Your task to perform on an android device: When is my next meeting? Image 0: 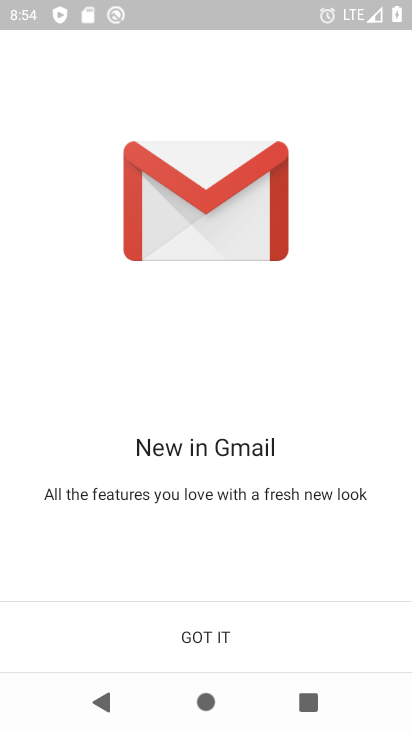
Step 0: drag from (252, 663) to (308, 189)
Your task to perform on an android device: When is my next meeting? Image 1: 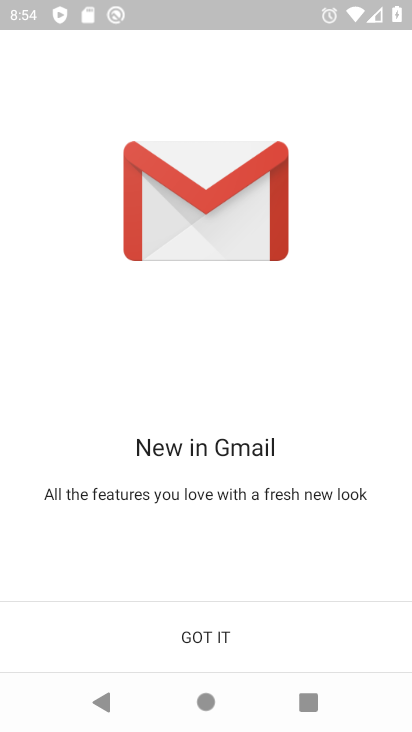
Step 1: press home button
Your task to perform on an android device: When is my next meeting? Image 2: 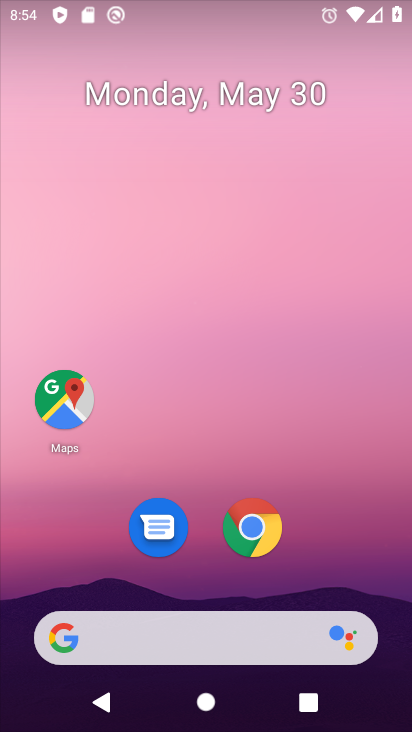
Step 2: drag from (209, 630) to (317, 0)
Your task to perform on an android device: When is my next meeting? Image 3: 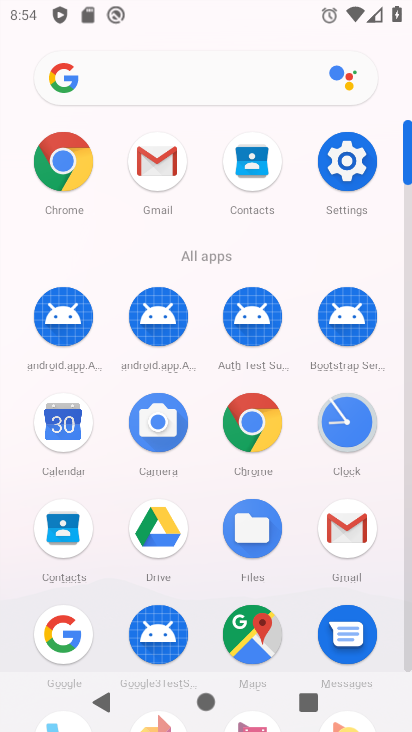
Step 3: click (82, 427)
Your task to perform on an android device: When is my next meeting? Image 4: 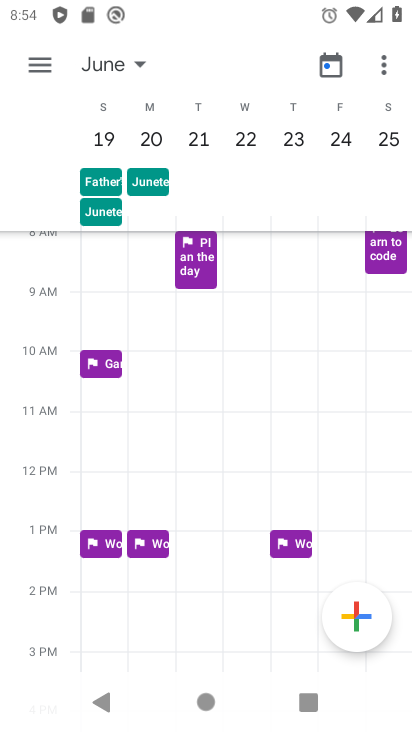
Step 4: click (139, 64)
Your task to perform on an android device: When is my next meeting? Image 5: 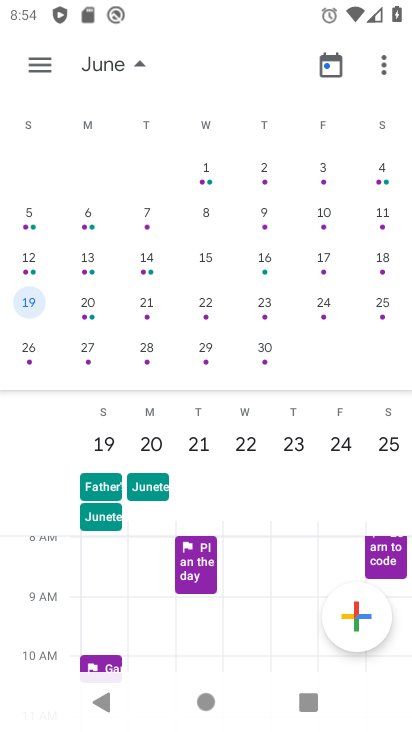
Step 5: drag from (121, 269) to (394, 241)
Your task to perform on an android device: When is my next meeting? Image 6: 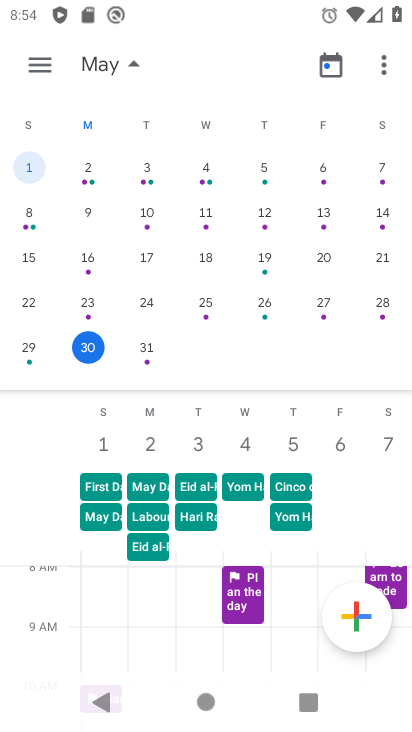
Step 6: click (151, 347)
Your task to perform on an android device: When is my next meeting? Image 7: 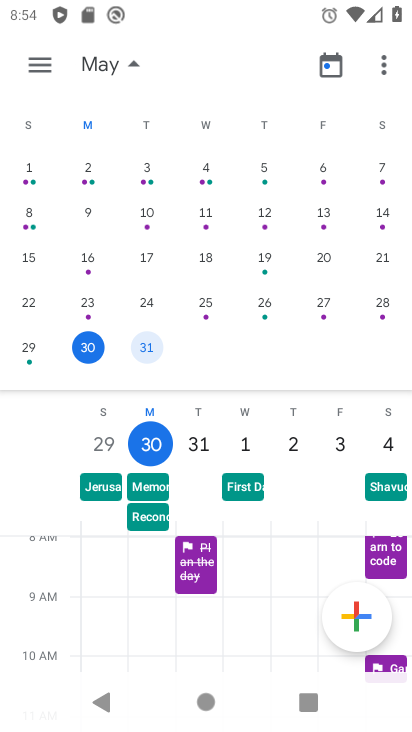
Step 7: task complete